Your task to perform on an android device: Open privacy settings Image 0: 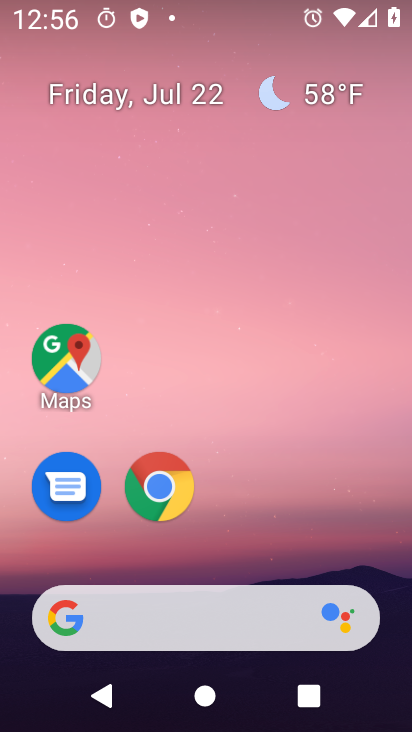
Step 0: press home button
Your task to perform on an android device: Open privacy settings Image 1: 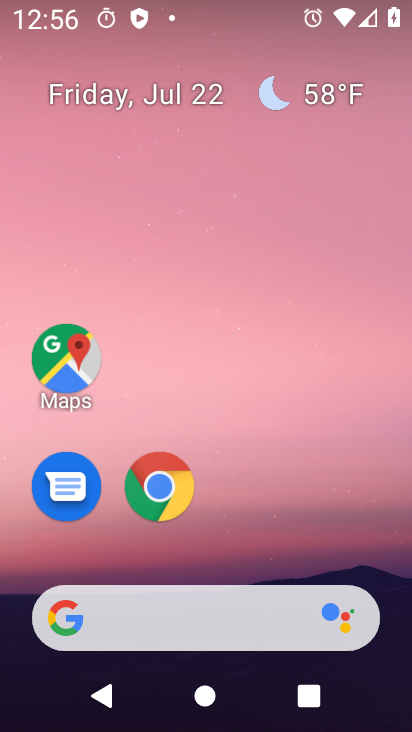
Step 1: drag from (347, 533) to (352, 136)
Your task to perform on an android device: Open privacy settings Image 2: 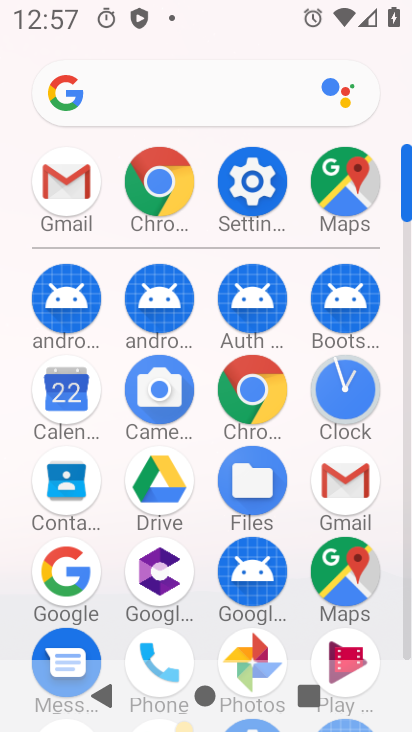
Step 2: click (266, 197)
Your task to perform on an android device: Open privacy settings Image 3: 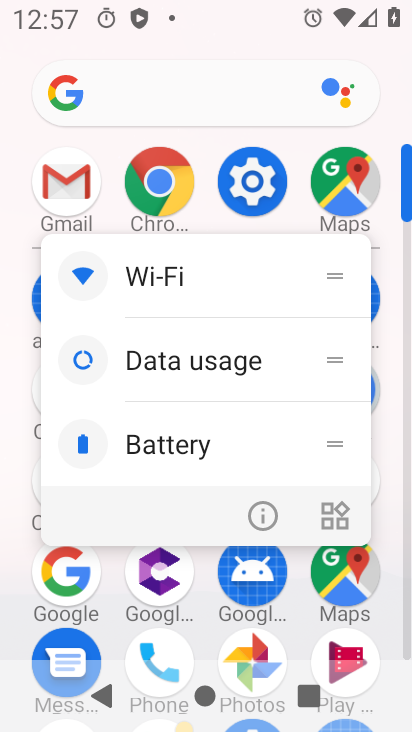
Step 3: click (267, 204)
Your task to perform on an android device: Open privacy settings Image 4: 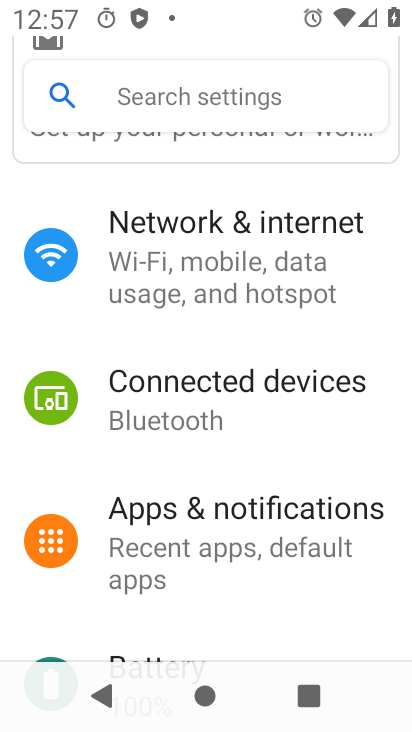
Step 4: drag from (346, 442) to (352, 387)
Your task to perform on an android device: Open privacy settings Image 5: 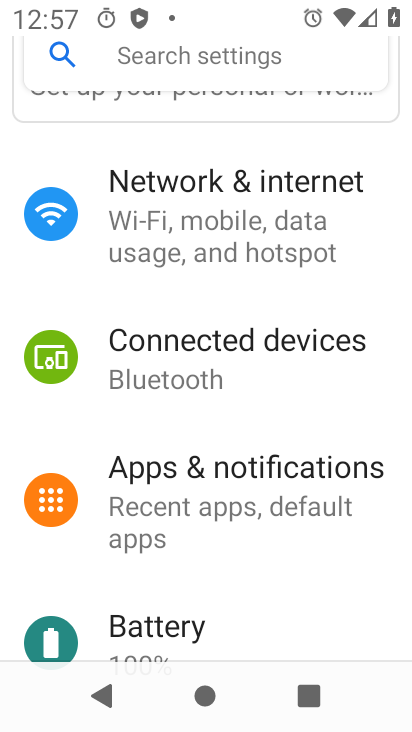
Step 5: drag from (362, 450) to (360, 396)
Your task to perform on an android device: Open privacy settings Image 6: 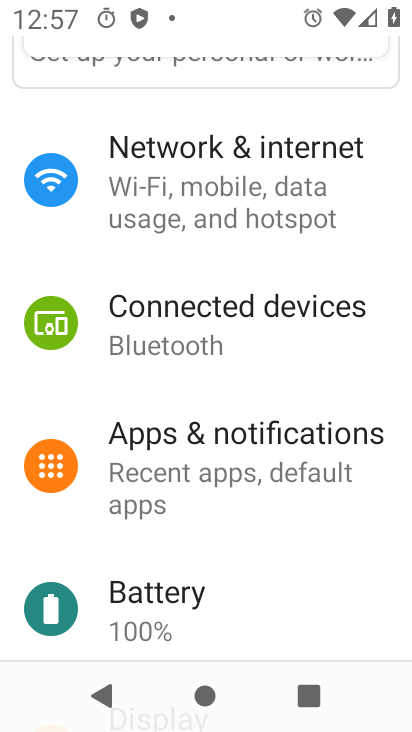
Step 6: drag from (375, 476) to (378, 416)
Your task to perform on an android device: Open privacy settings Image 7: 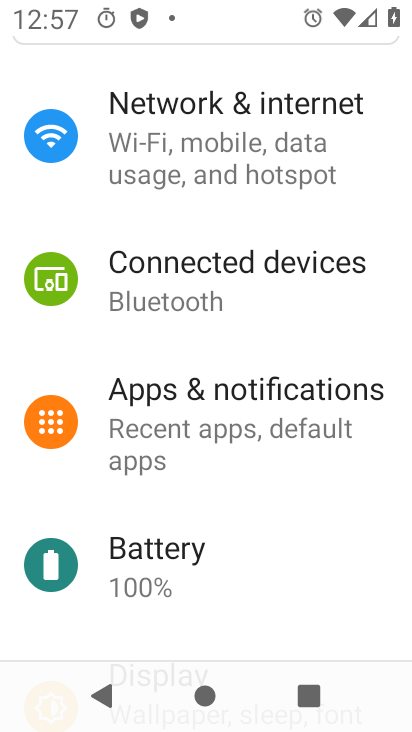
Step 7: drag from (380, 497) to (390, 406)
Your task to perform on an android device: Open privacy settings Image 8: 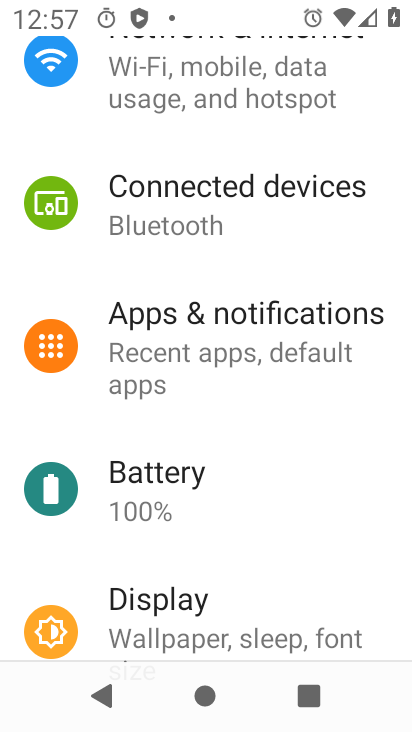
Step 8: drag from (379, 511) to (373, 425)
Your task to perform on an android device: Open privacy settings Image 9: 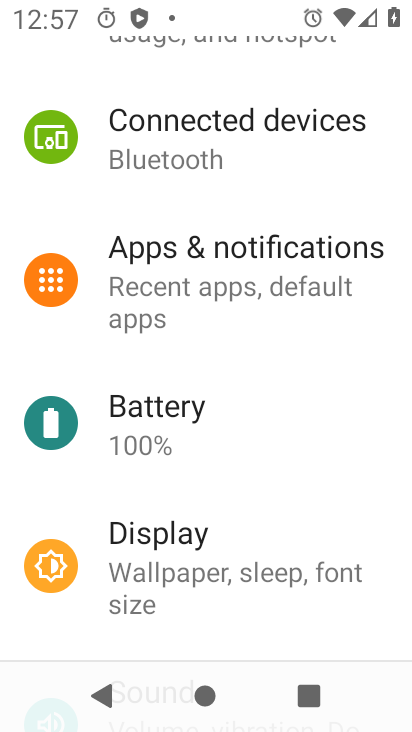
Step 9: drag from (366, 535) to (364, 449)
Your task to perform on an android device: Open privacy settings Image 10: 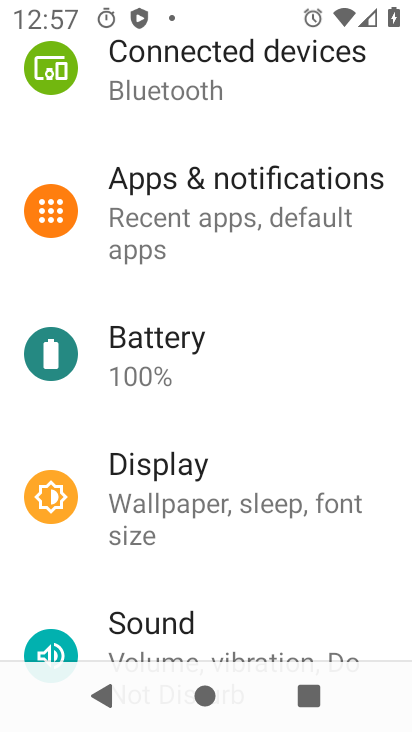
Step 10: drag from (365, 556) to (369, 468)
Your task to perform on an android device: Open privacy settings Image 11: 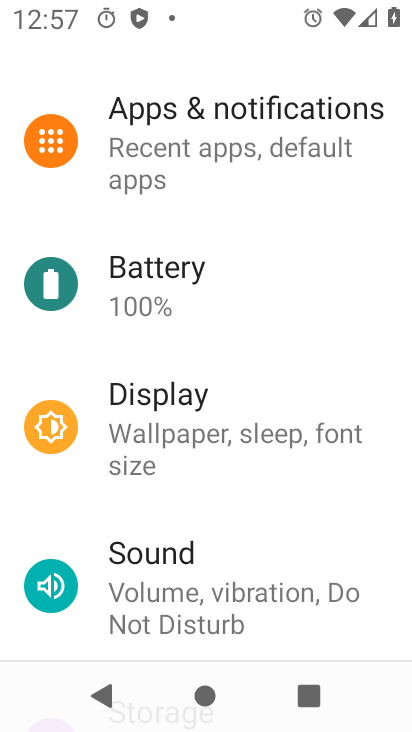
Step 11: drag from (386, 566) to (360, 442)
Your task to perform on an android device: Open privacy settings Image 12: 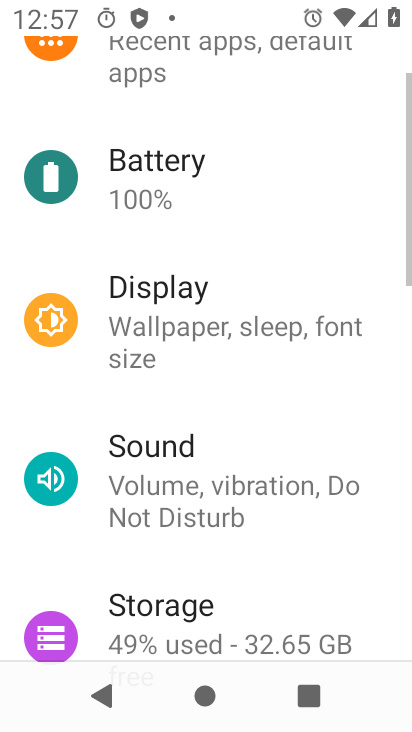
Step 12: drag from (348, 629) to (351, 523)
Your task to perform on an android device: Open privacy settings Image 13: 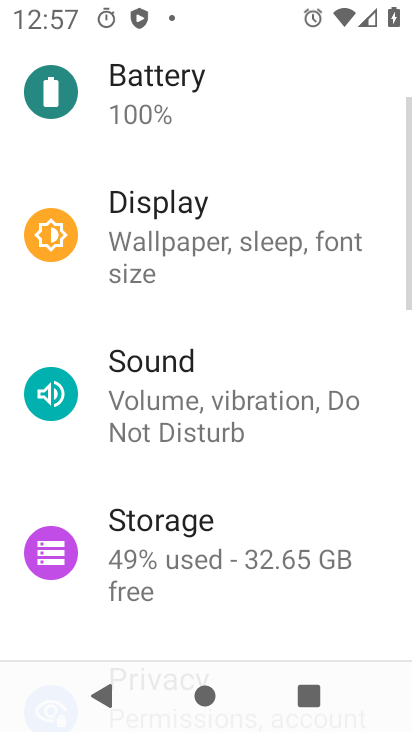
Step 13: drag from (368, 601) to (373, 496)
Your task to perform on an android device: Open privacy settings Image 14: 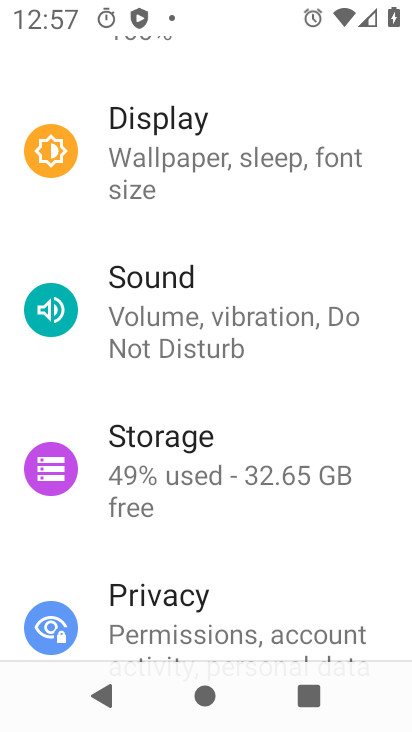
Step 14: drag from (342, 616) to (339, 473)
Your task to perform on an android device: Open privacy settings Image 15: 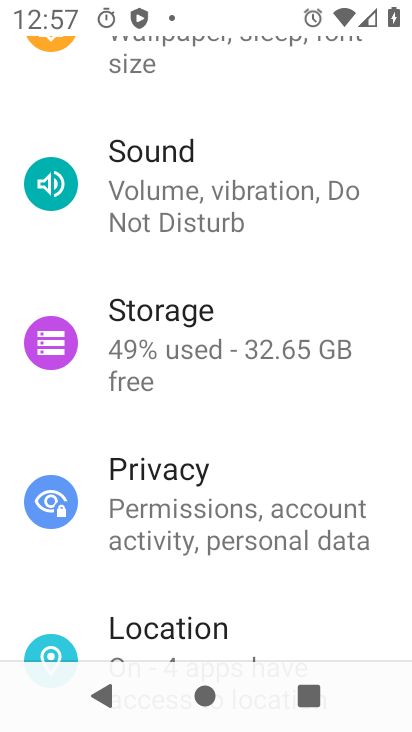
Step 15: click (333, 550)
Your task to perform on an android device: Open privacy settings Image 16: 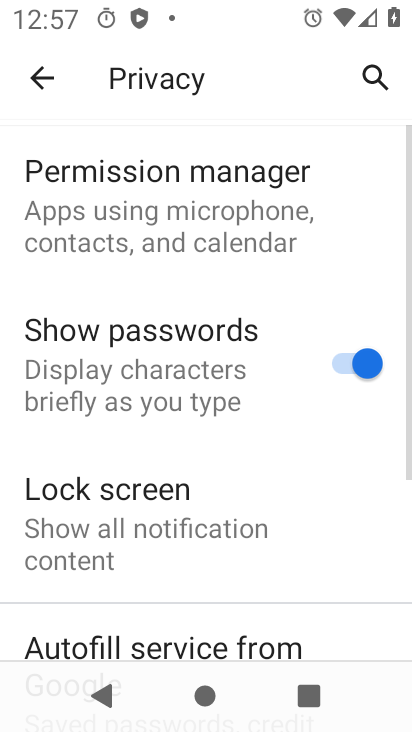
Step 16: task complete